Your task to perform on an android device: make emails show in primary in the gmail app Image 0: 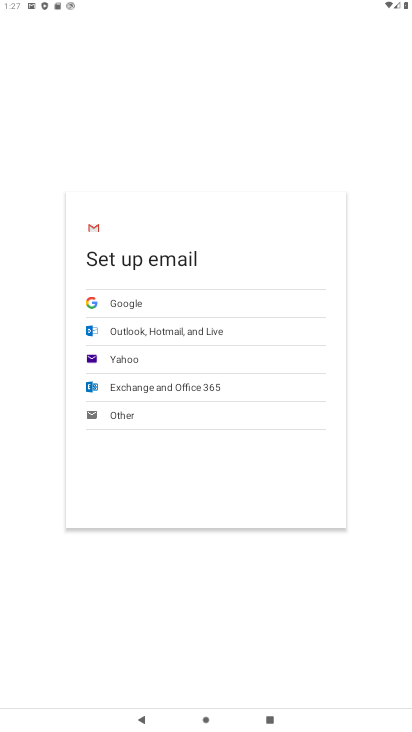
Step 0: press home button
Your task to perform on an android device: make emails show in primary in the gmail app Image 1: 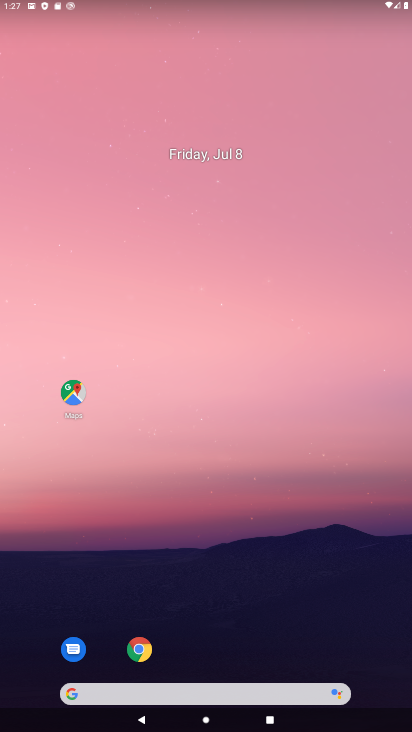
Step 1: drag from (278, 352) to (318, 84)
Your task to perform on an android device: make emails show in primary in the gmail app Image 2: 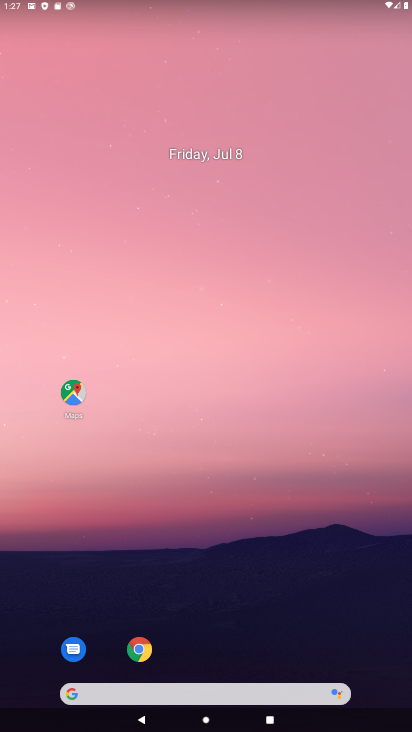
Step 2: drag from (320, 557) to (284, 68)
Your task to perform on an android device: make emails show in primary in the gmail app Image 3: 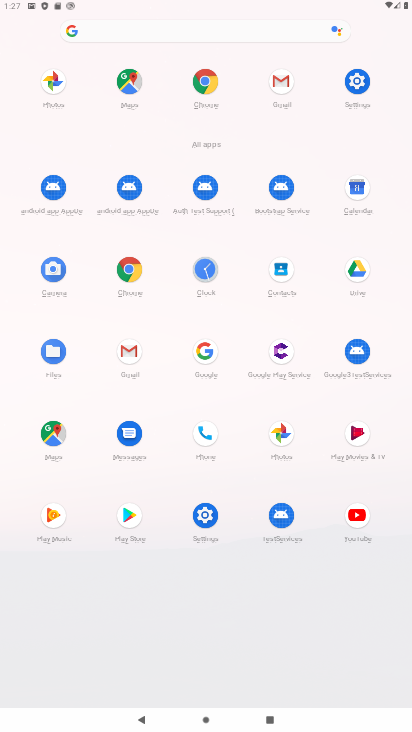
Step 3: click (280, 78)
Your task to perform on an android device: make emails show in primary in the gmail app Image 4: 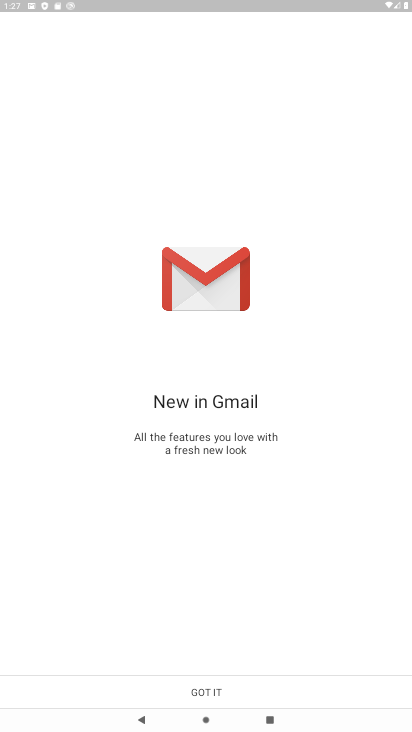
Step 4: click (204, 705)
Your task to perform on an android device: make emails show in primary in the gmail app Image 5: 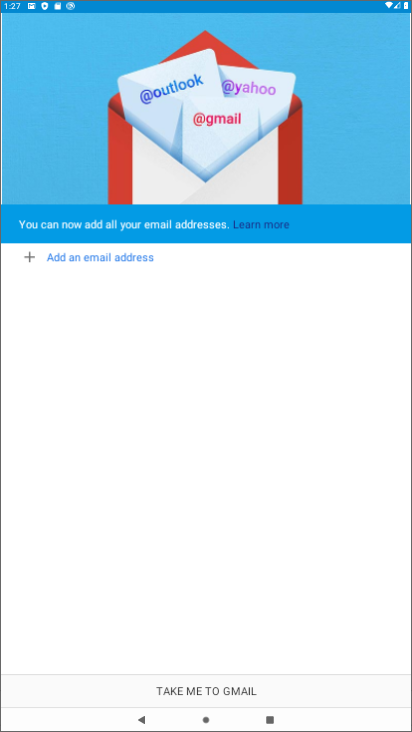
Step 5: click (204, 698)
Your task to perform on an android device: make emails show in primary in the gmail app Image 6: 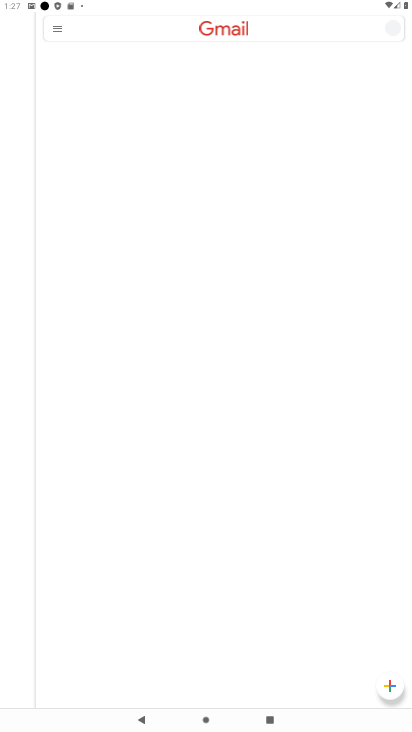
Step 6: click (217, 669)
Your task to perform on an android device: make emails show in primary in the gmail app Image 7: 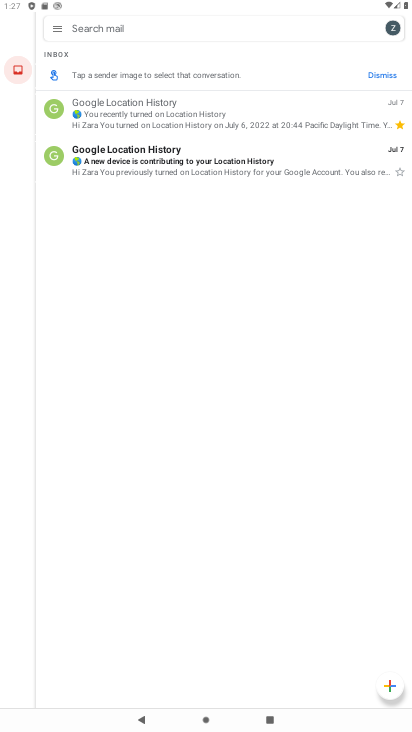
Step 7: click (58, 27)
Your task to perform on an android device: make emails show in primary in the gmail app Image 8: 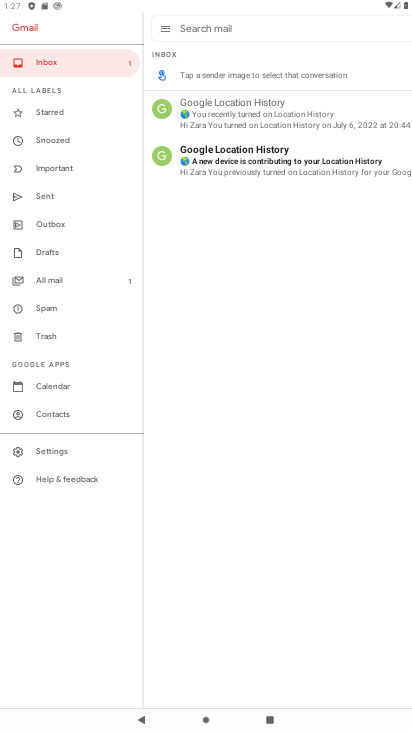
Step 8: click (47, 455)
Your task to perform on an android device: make emails show in primary in the gmail app Image 9: 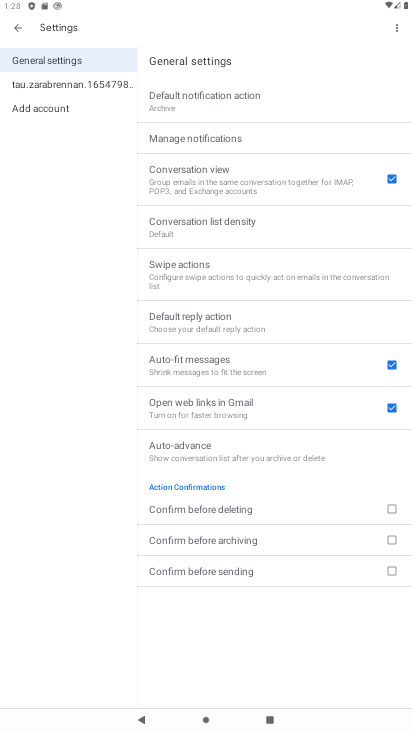
Step 9: click (78, 83)
Your task to perform on an android device: make emails show in primary in the gmail app Image 10: 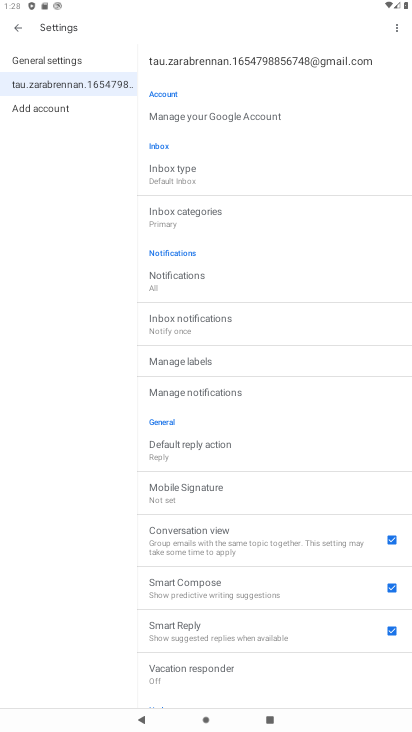
Step 10: click (189, 171)
Your task to perform on an android device: make emails show in primary in the gmail app Image 11: 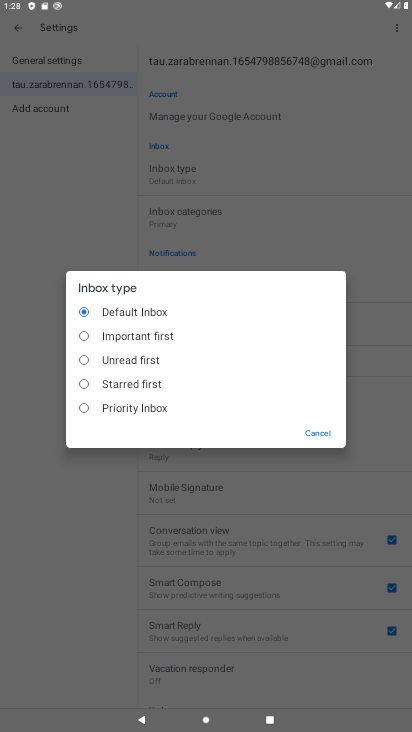
Step 11: click (322, 436)
Your task to perform on an android device: make emails show in primary in the gmail app Image 12: 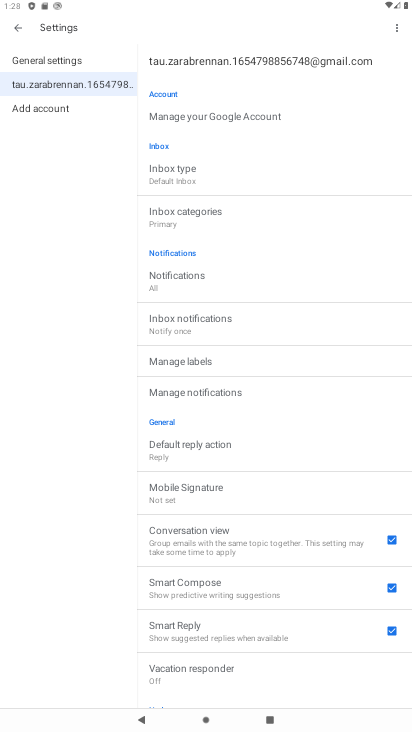
Step 12: click (207, 218)
Your task to perform on an android device: make emails show in primary in the gmail app Image 13: 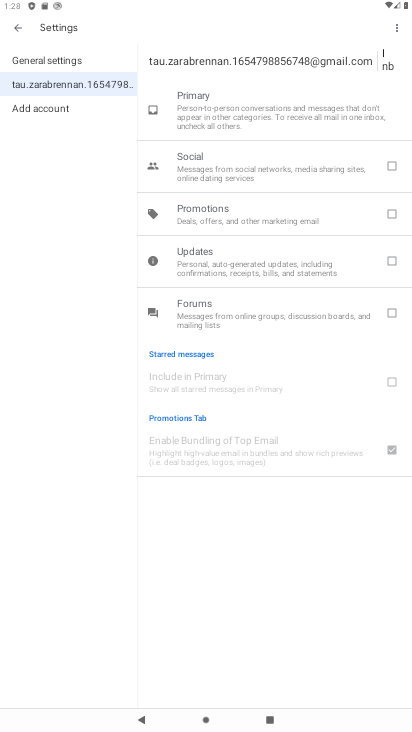
Step 13: task complete